Your task to perform on an android device: turn on bluetooth scan Image 0: 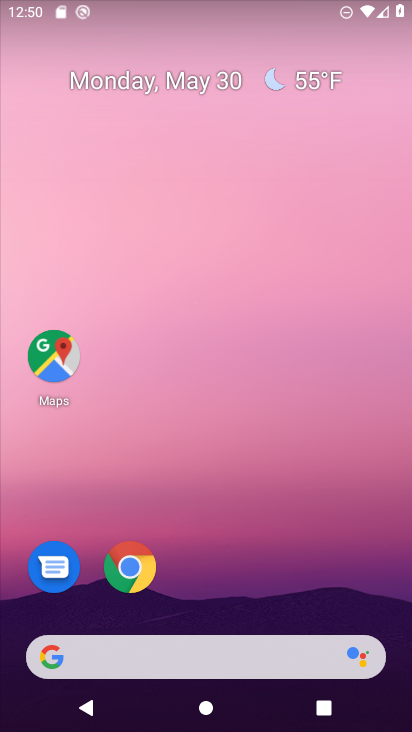
Step 0: press home button
Your task to perform on an android device: turn on bluetooth scan Image 1: 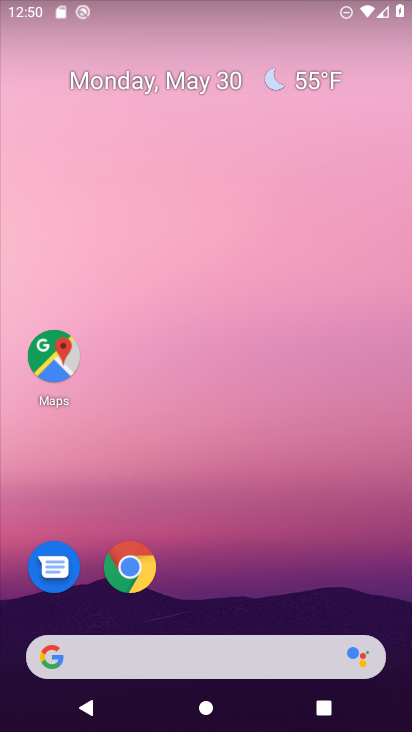
Step 1: drag from (215, 598) to (227, 87)
Your task to perform on an android device: turn on bluetooth scan Image 2: 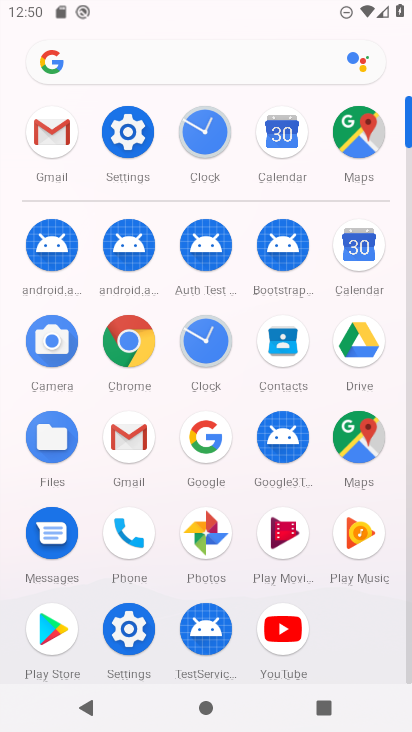
Step 2: click (129, 121)
Your task to perform on an android device: turn on bluetooth scan Image 3: 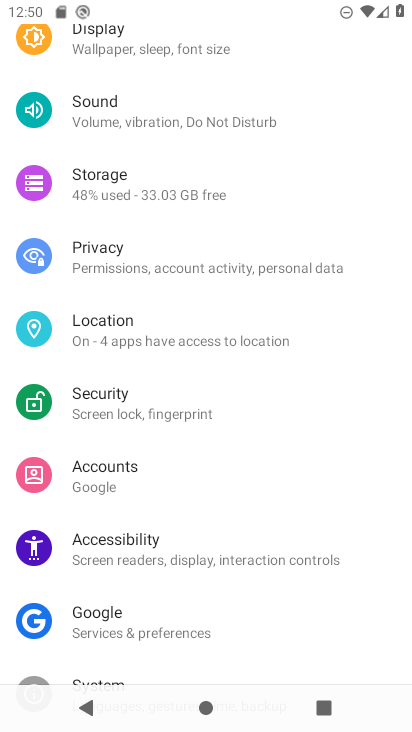
Step 3: click (147, 322)
Your task to perform on an android device: turn on bluetooth scan Image 4: 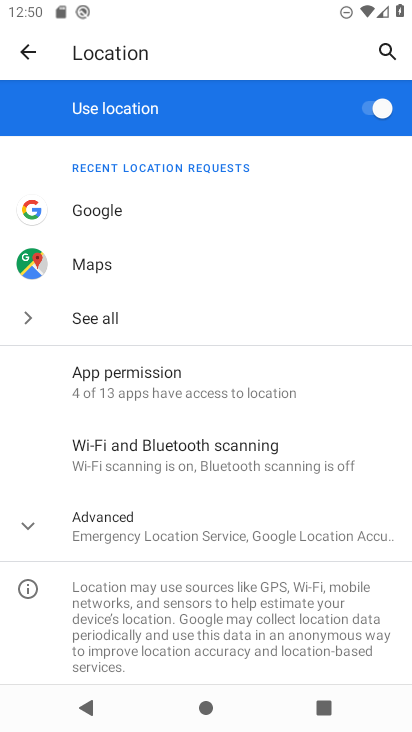
Step 4: click (74, 529)
Your task to perform on an android device: turn on bluetooth scan Image 5: 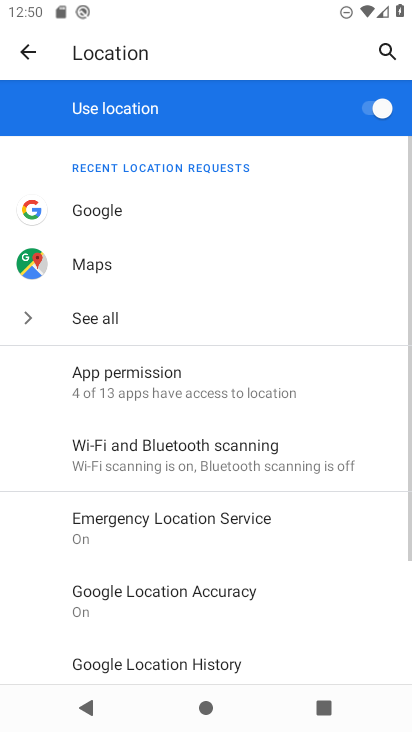
Step 5: click (254, 453)
Your task to perform on an android device: turn on bluetooth scan Image 6: 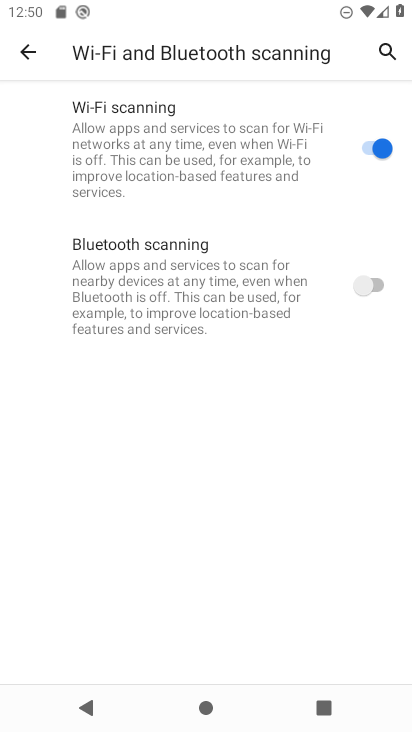
Step 6: click (381, 271)
Your task to perform on an android device: turn on bluetooth scan Image 7: 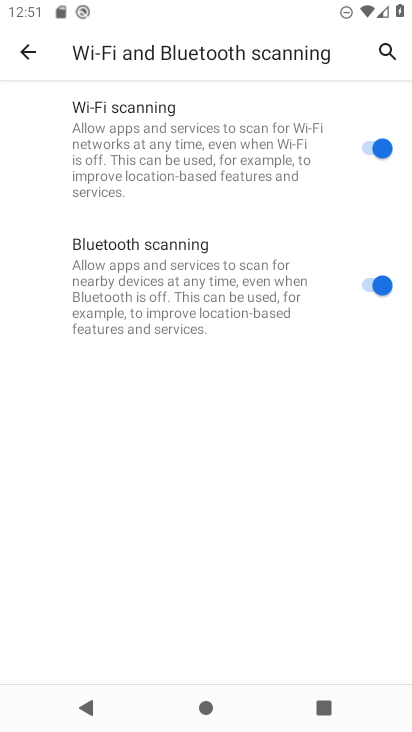
Step 7: task complete